Your task to perform on an android device: Search for Mexican restaurants on Maps Image 0: 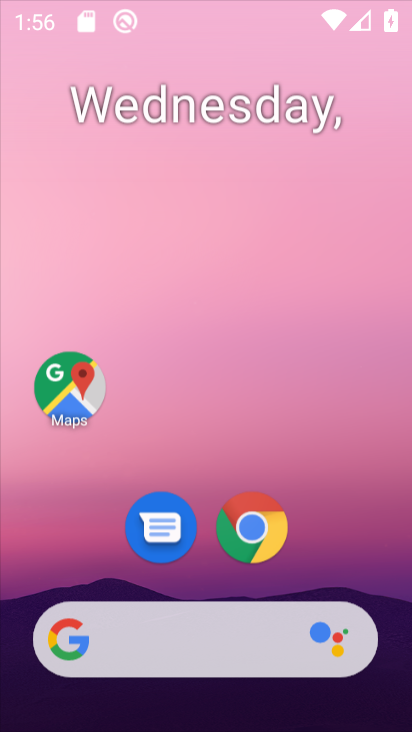
Step 0: drag from (321, 535) to (317, 239)
Your task to perform on an android device: Search for Mexican restaurants on Maps Image 1: 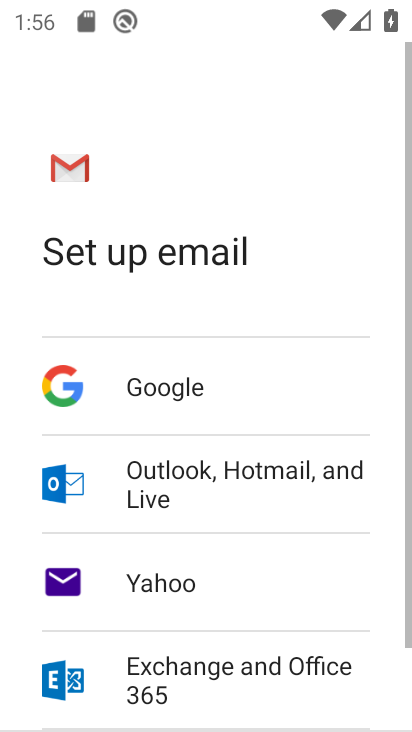
Step 1: press home button
Your task to perform on an android device: Search for Mexican restaurants on Maps Image 2: 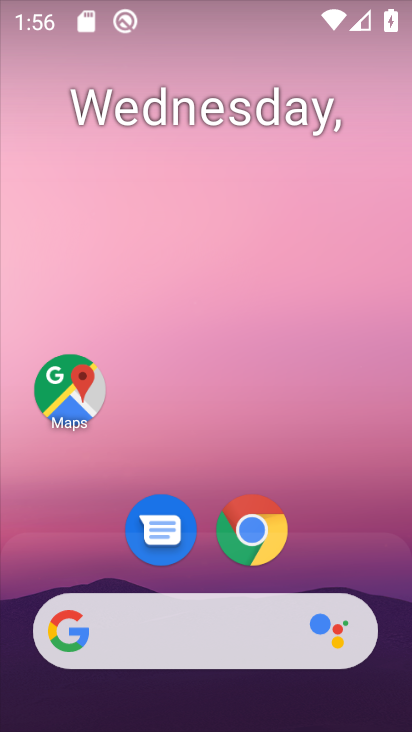
Step 2: click (68, 380)
Your task to perform on an android device: Search for Mexican restaurants on Maps Image 3: 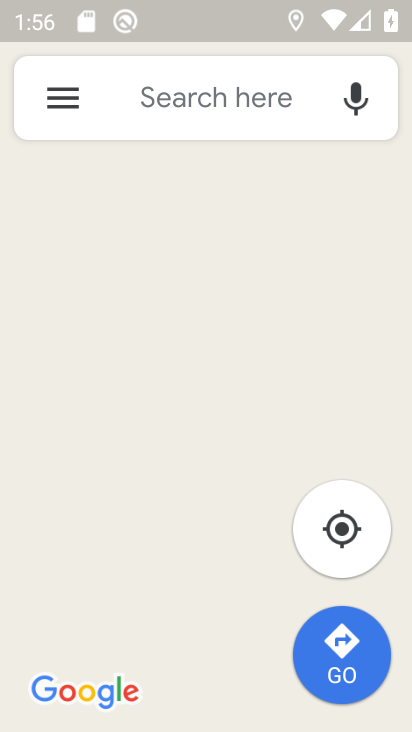
Step 3: click (155, 85)
Your task to perform on an android device: Search for Mexican restaurants on Maps Image 4: 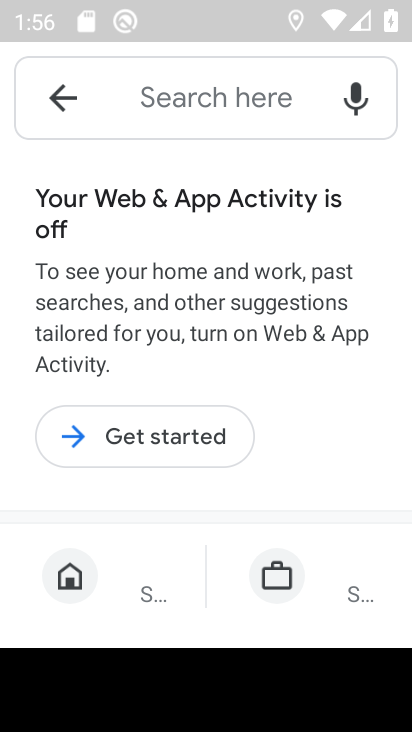
Step 4: click (148, 102)
Your task to perform on an android device: Search for Mexican restaurants on Maps Image 5: 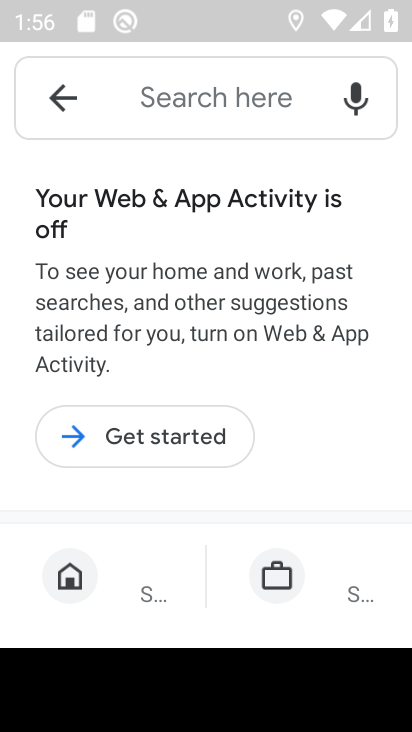
Step 5: type "Mexican restaurants "
Your task to perform on an android device: Search for Mexican restaurants on Maps Image 6: 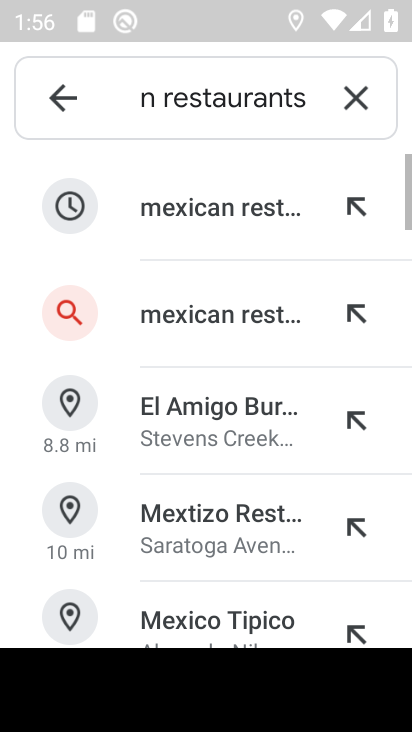
Step 6: click (212, 197)
Your task to perform on an android device: Search for Mexican restaurants on Maps Image 7: 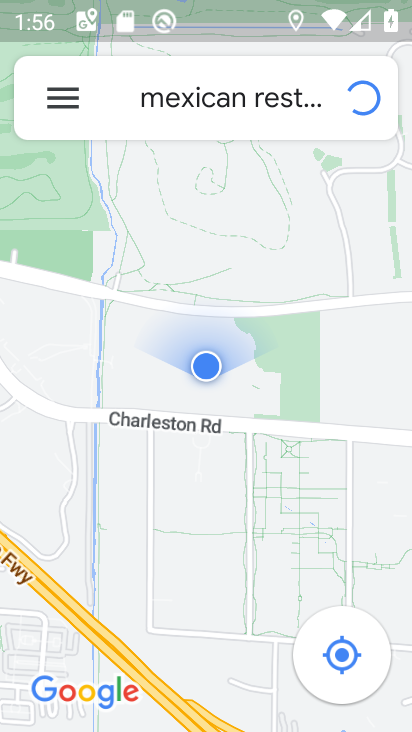
Step 7: task complete